Your task to perform on an android device: Open Android settings Image 0: 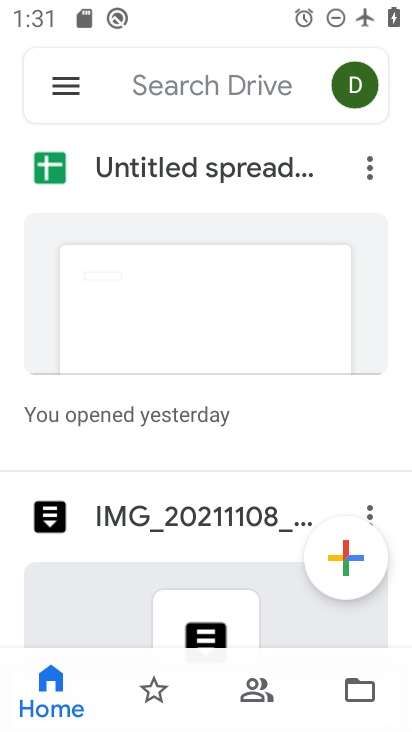
Step 0: press home button
Your task to perform on an android device: Open Android settings Image 1: 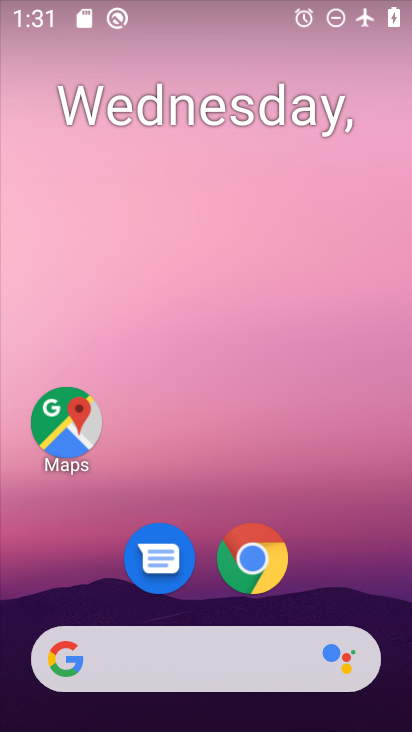
Step 1: drag from (406, 647) to (283, 152)
Your task to perform on an android device: Open Android settings Image 2: 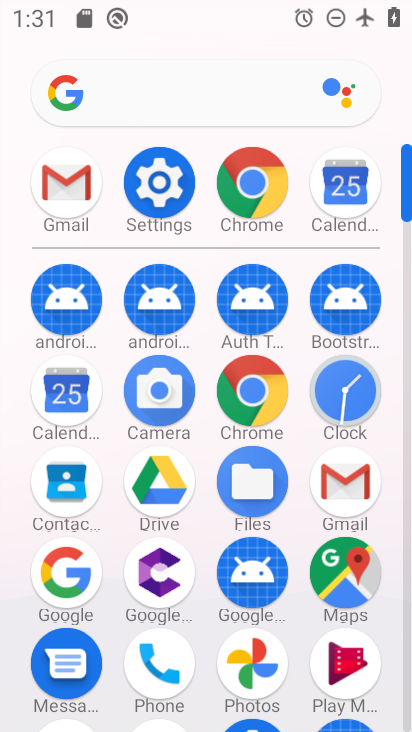
Step 2: click (148, 187)
Your task to perform on an android device: Open Android settings Image 3: 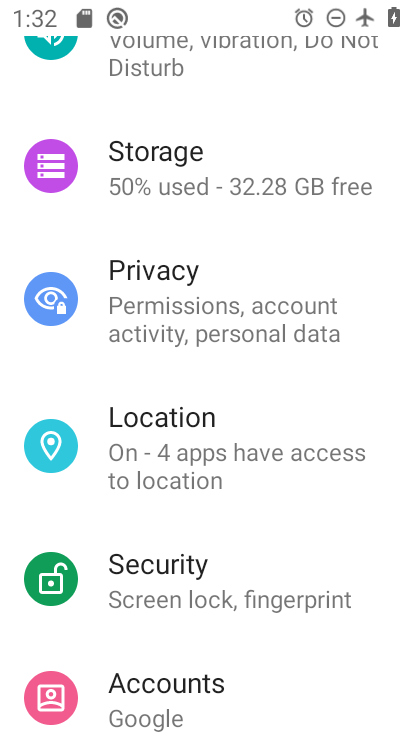
Step 3: drag from (258, 671) to (180, 265)
Your task to perform on an android device: Open Android settings Image 4: 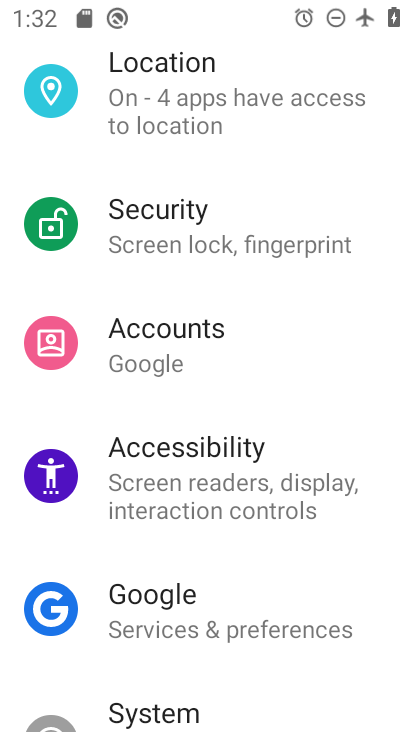
Step 4: drag from (209, 603) to (165, 258)
Your task to perform on an android device: Open Android settings Image 5: 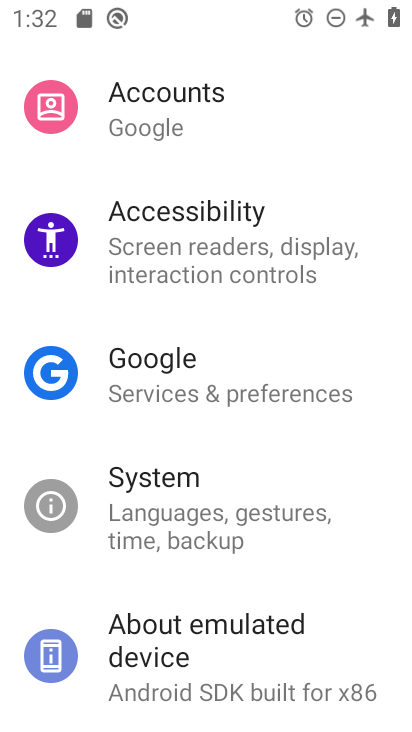
Step 5: click (226, 665)
Your task to perform on an android device: Open Android settings Image 6: 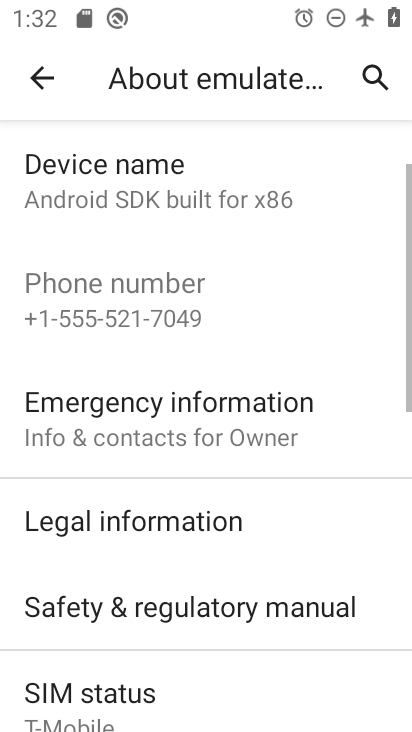
Step 6: drag from (216, 665) to (238, 331)
Your task to perform on an android device: Open Android settings Image 7: 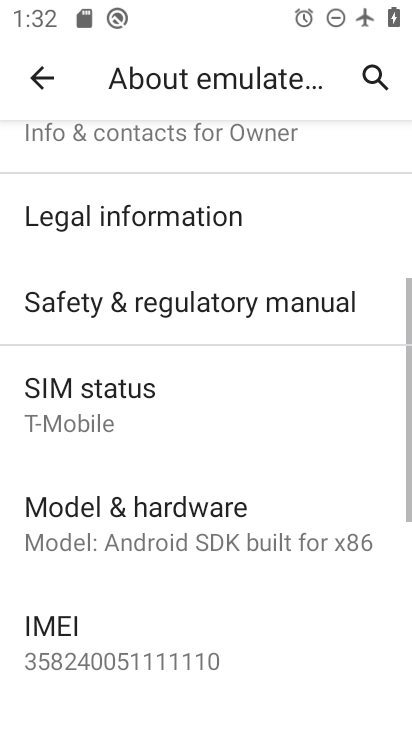
Step 7: drag from (212, 638) to (244, 330)
Your task to perform on an android device: Open Android settings Image 8: 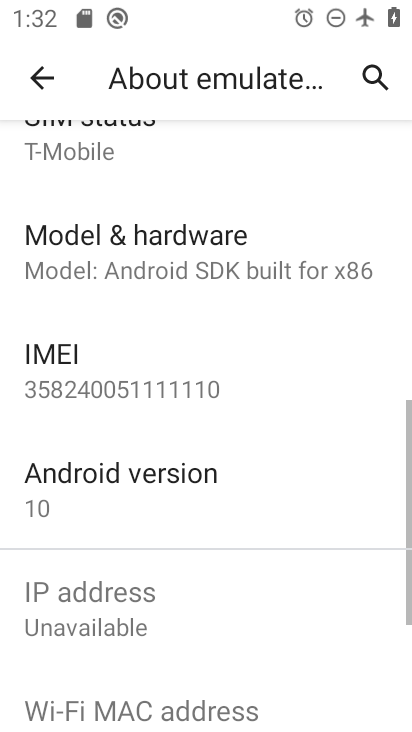
Step 8: click (229, 518)
Your task to perform on an android device: Open Android settings Image 9: 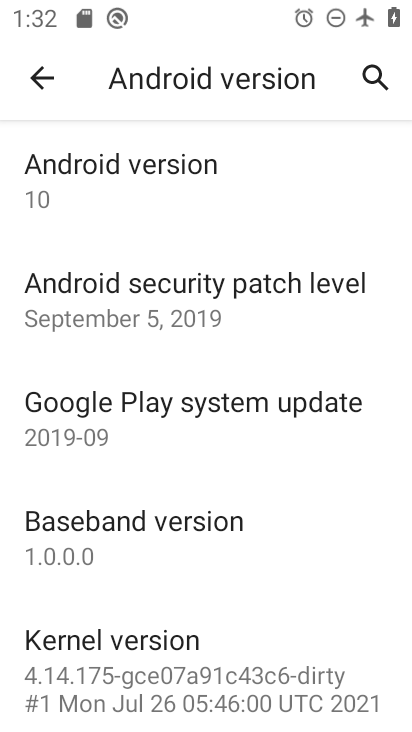
Step 9: task complete